Your task to perform on an android device: Open notification settings Image 0: 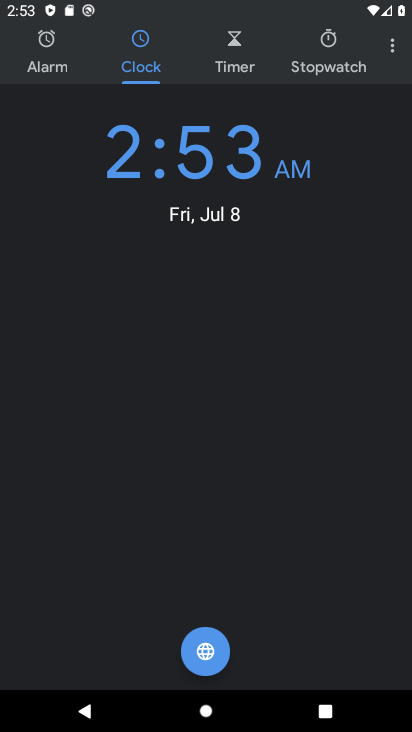
Step 0: press home button
Your task to perform on an android device: Open notification settings Image 1: 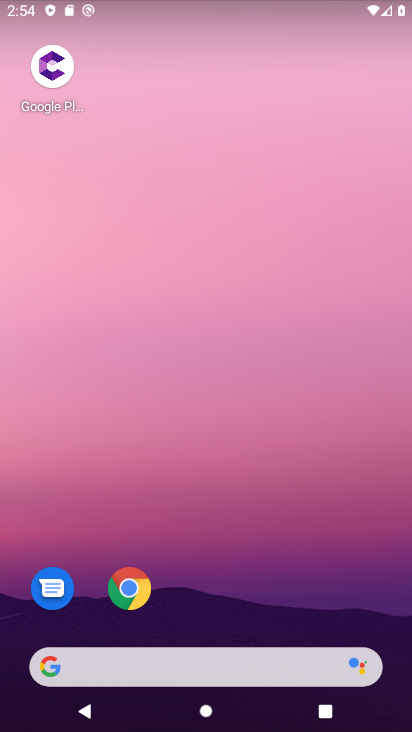
Step 1: drag from (173, 670) to (308, 87)
Your task to perform on an android device: Open notification settings Image 2: 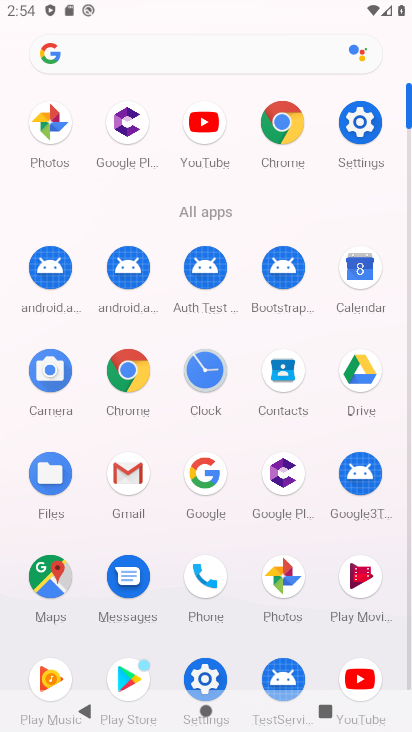
Step 2: click (354, 137)
Your task to perform on an android device: Open notification settings Image 3: 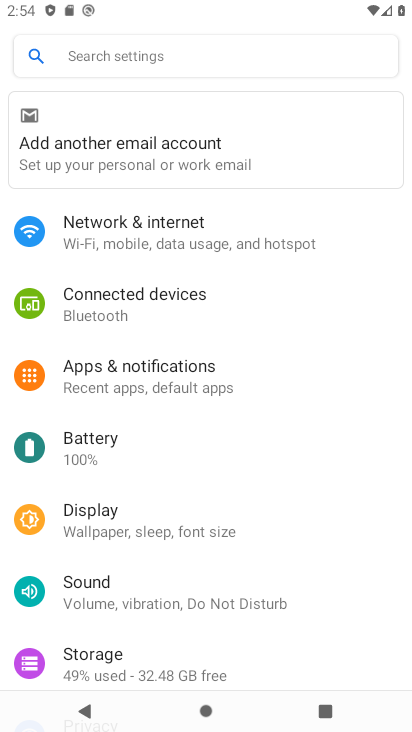
Step 3: click (157, 370)
Your task to perform on an android device: Open notification settings Image 4: 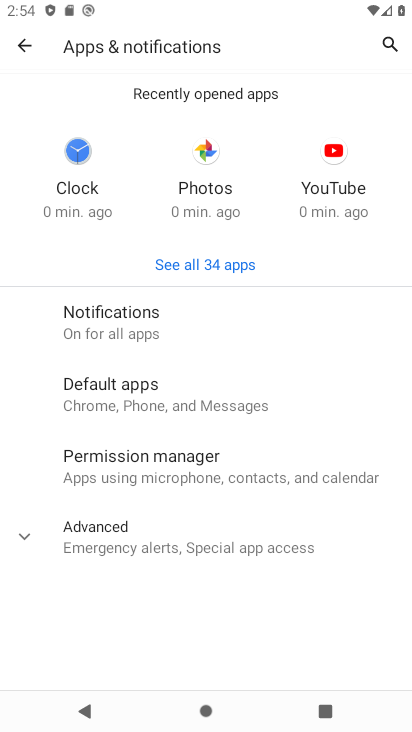
Step 4: click (124, 330)
Your task to perform on an android device: Open notification settings Image 5: 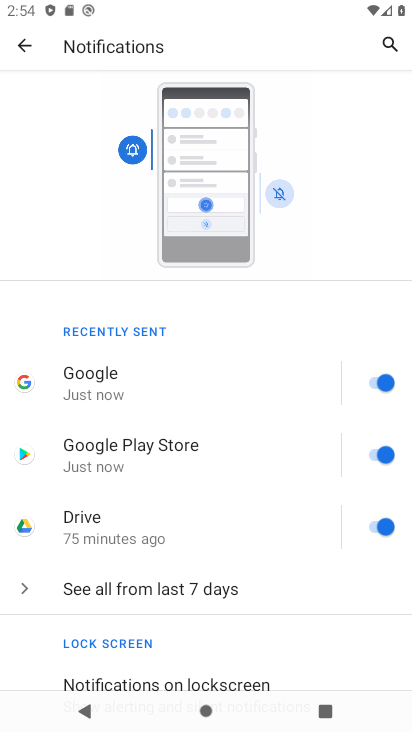
Step 5: task complete